Your task to perform on an android device: Add "razer deathadder" to the cart on amazon Image 0: 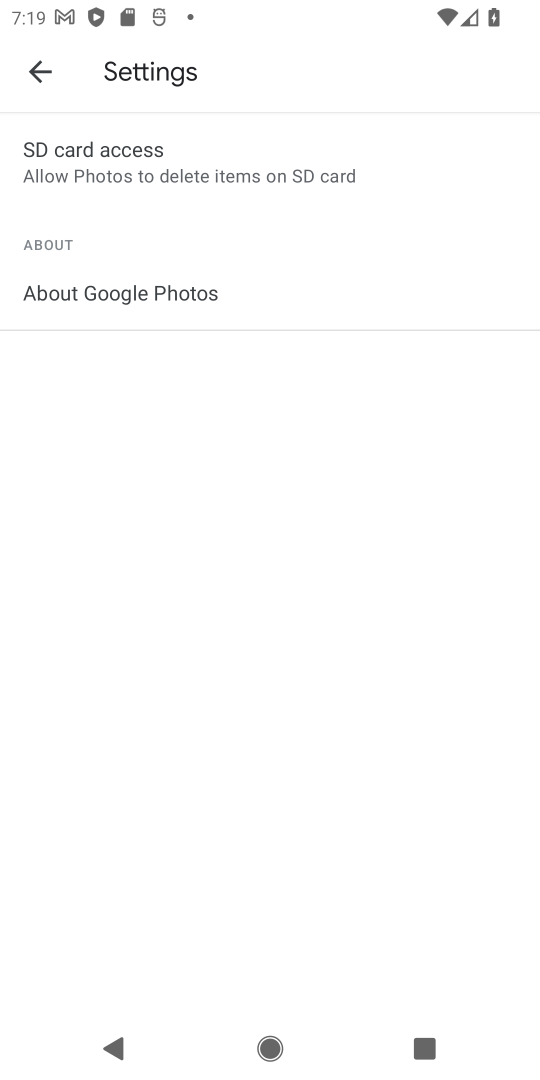
Step 0: press home button
Your task to perform on an android device: Add "razer deathadder" to the cart on amazon Image 1: 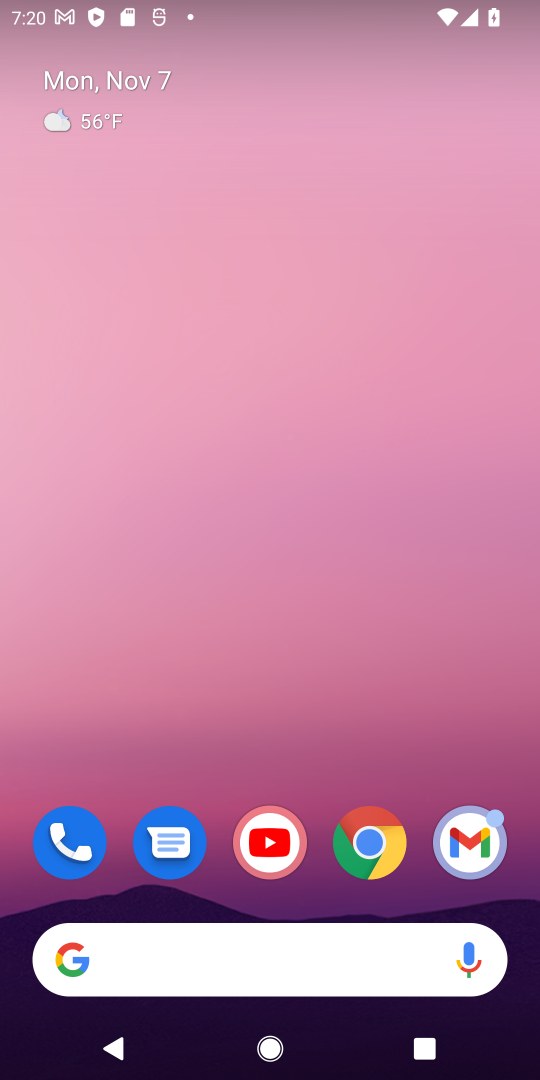
Step 1: click (376, 840)
Your task to perform on an android device: Add "razer deathadder" to the cart on amazon Image 2: 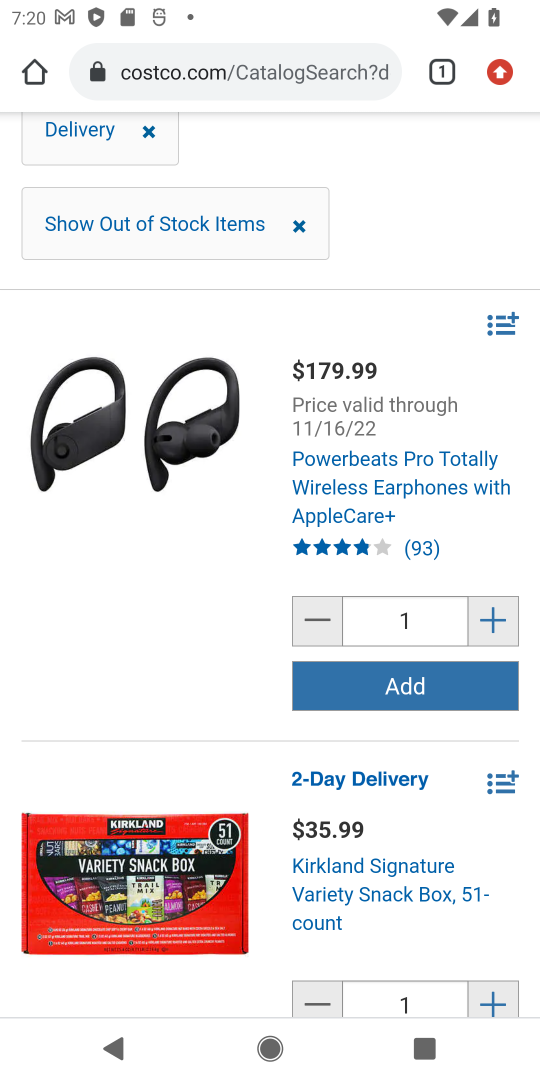
Step 2: click (265, 64)
Your task to perform on an android device: Add "razer deathadder" to the cart on amazon Image 3: 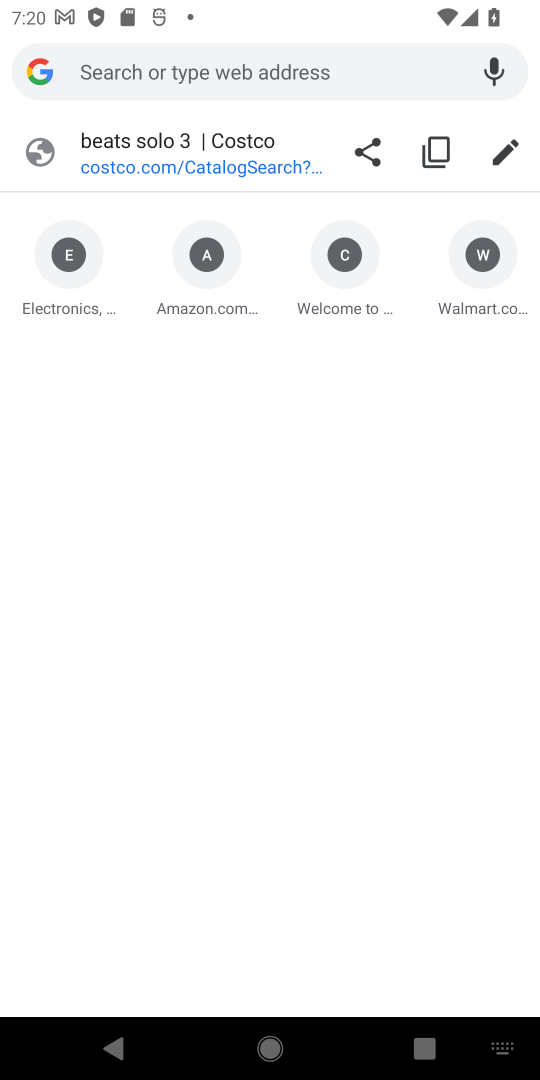
Step 3: click (218, 305)
Your task to perform on an android device: Add "razer deathadder" to the cart on amazon Image 4: 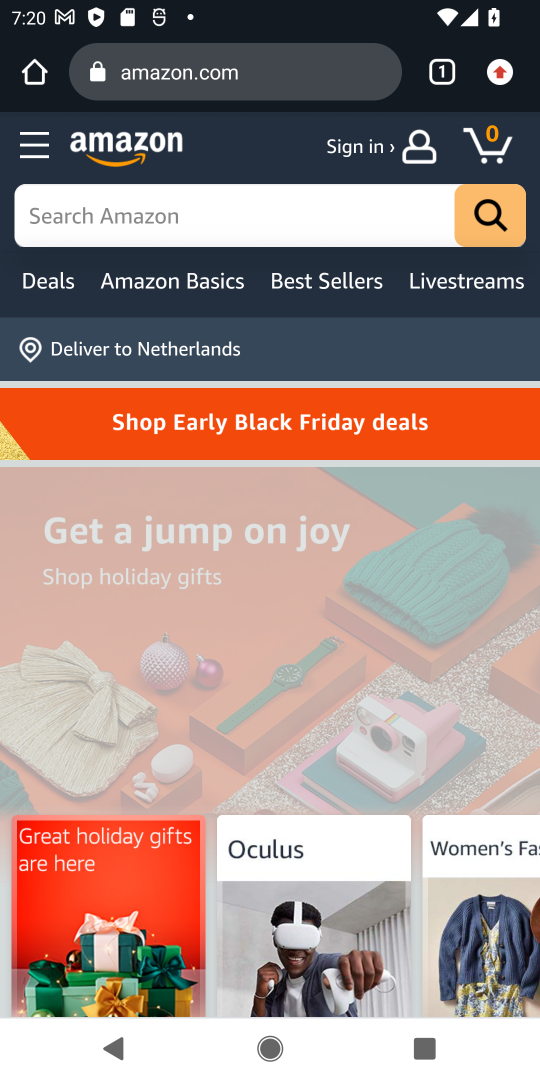
Step 4: click (104, 212)
Your task to perform on an android device: Add "razer deathadder" to the cart on amazon Image 5: 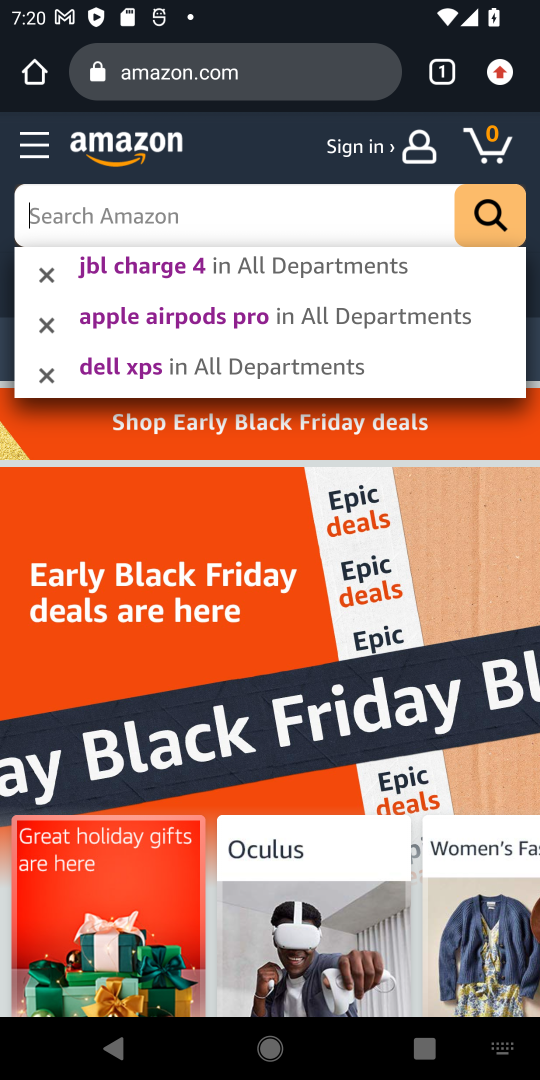
Step 5: type "razer deathadder"
Your task to perform on an android device: Add "razer deathadder" to the cart on amazon Image 6: 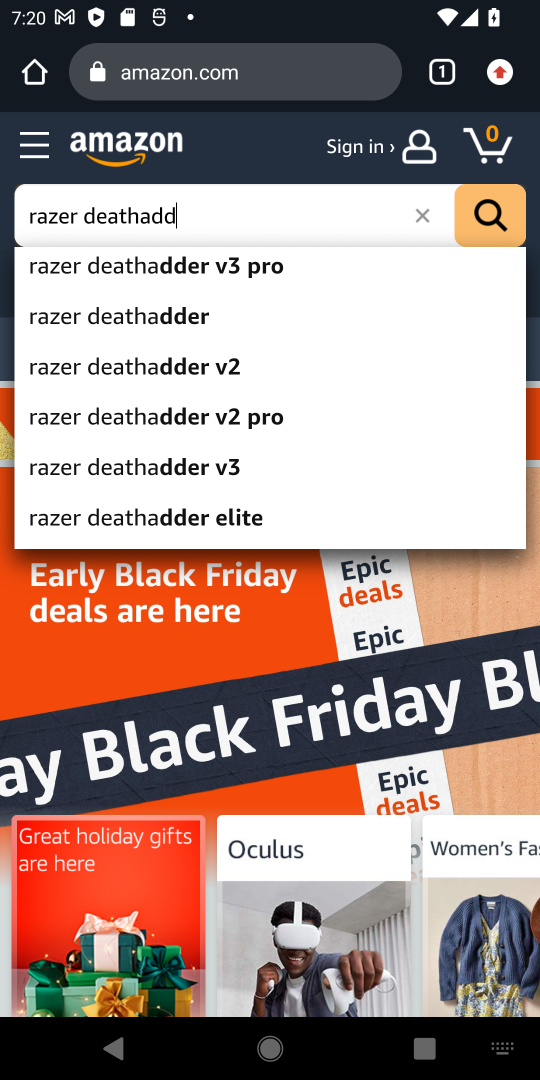
Step 6: press enter
Your task to perform on an android device: Add "razer deathadder" to the cart on amazon Image 7: 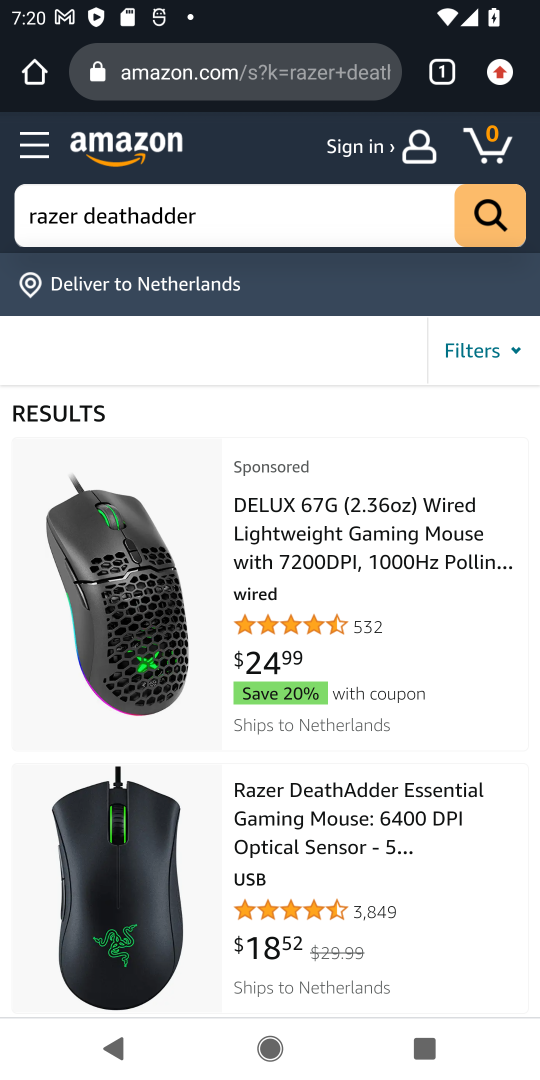
Step 7: click (338, 840)
Your task to perform on an android device: Add "razer deathadder" to the cart on amazon Image 8: 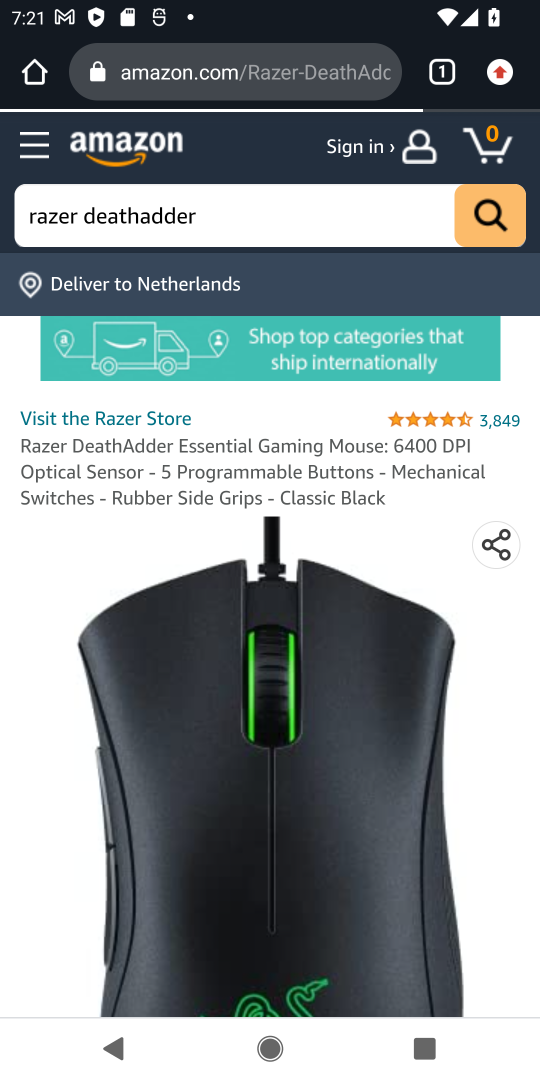
Step 8: drag from (80, 964) to (312, 100)
Your task to perform on an android device: Add "razer deathadder" to the cart on amazon Image 9: 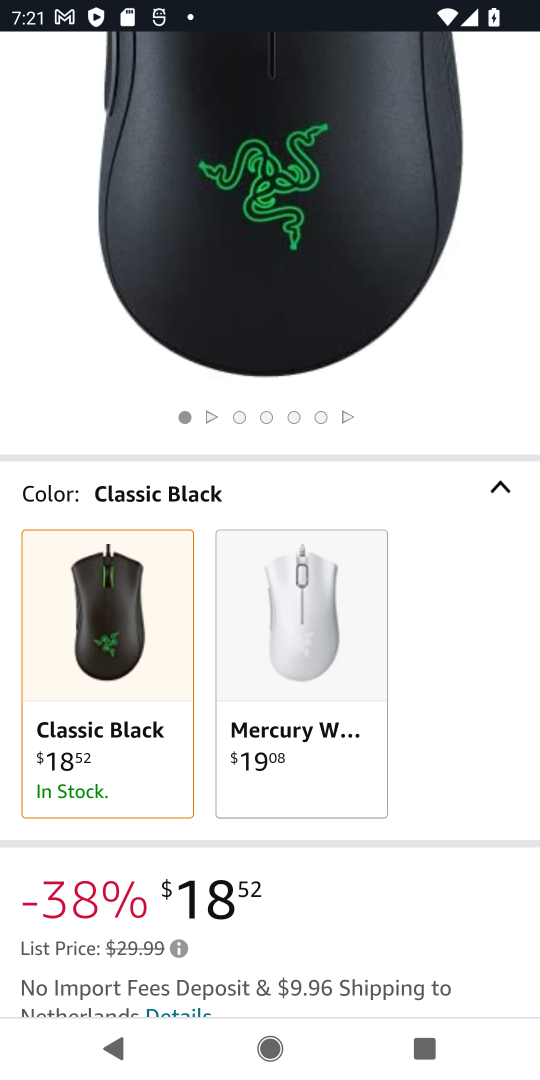
Step 9: drag from (400, 919) to (353, 126)
Your task to perform on an android device: Add "razer deathadder" to the cart on amazon Image 10: 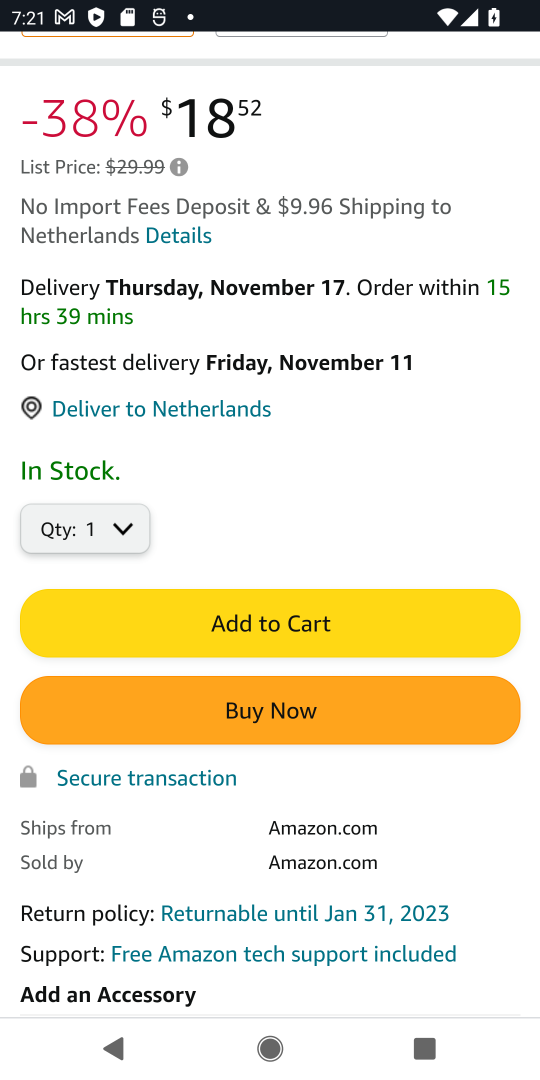
Step 10: click (265, 627)
Your task to perform on an android device: Add "razer deathadder" to the cart on amazon Image 11: 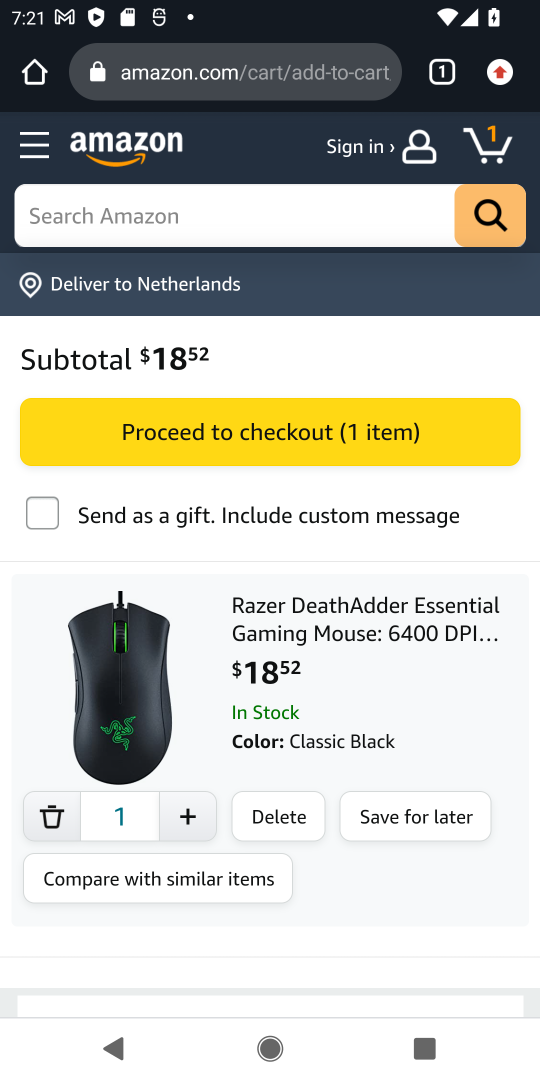
Step 11: click (485, 133)
Your task to perform on an android device: Add "razer deathadder" to the cart on amazon Image 12: 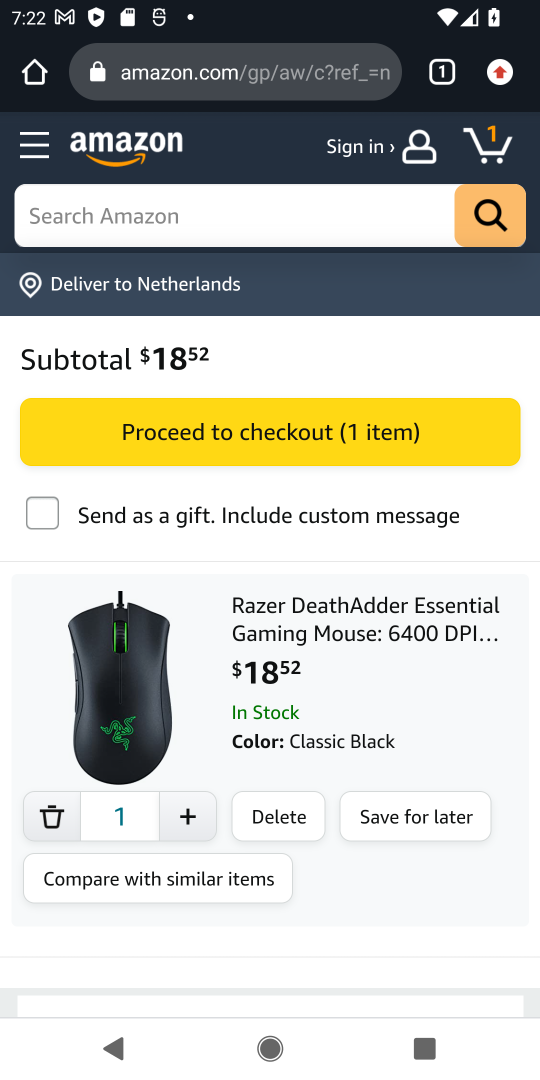
Step 12: task complete